Your task to perform on an android device: Check the weather Image 0: 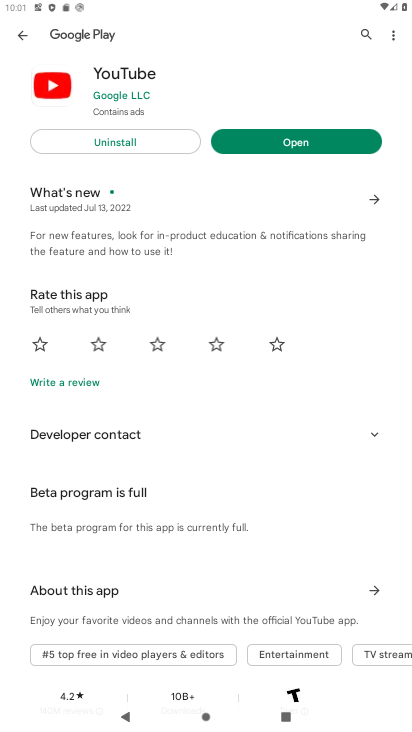
Step 0: press home button
Your task to perform on an android device: Check the weather Image 1: 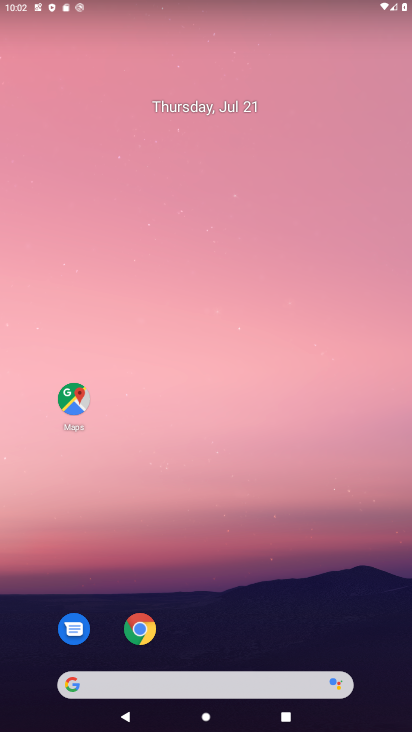
Step 1: click (168, 682)
Your task to perform on an android device: Check the weather Image 2: 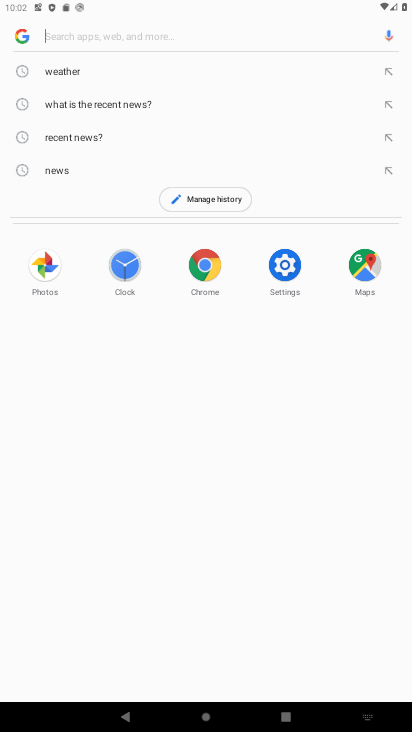
Step 2: click (91, 72)
Your task to perform on an android device: Check the weather Image 3: 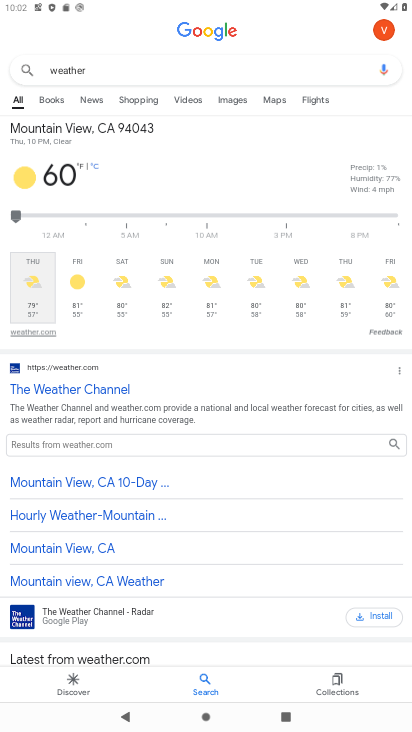
Step 3: task complete